Your task to perform on an android device: open chrome privacy settings Image 0: 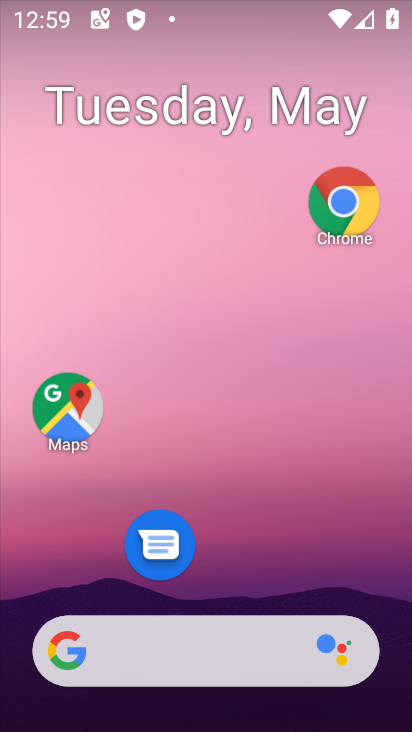
Step 0: click (343, 195)
Your task to perform on an android device: open chrome privacy settings Image 1: 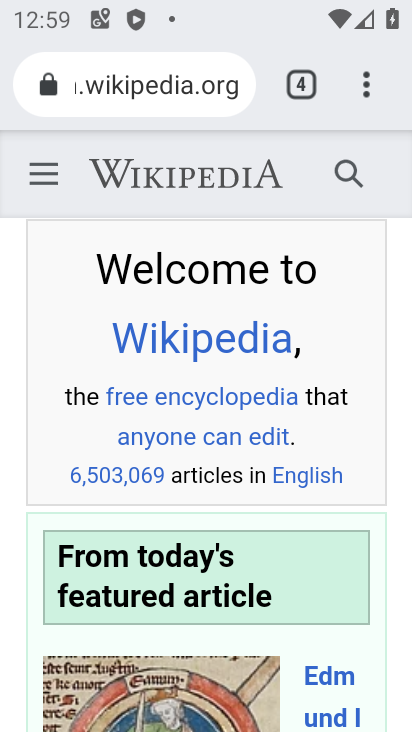
Step 1: click (381, 83)
Your task to perform on an android device: open chrome privacy settings Image 2: 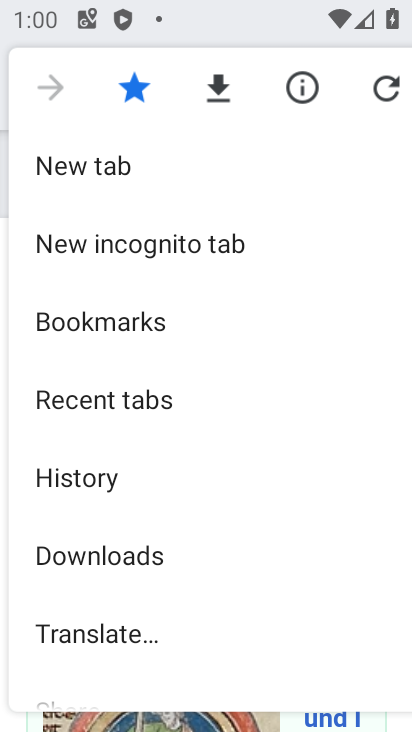
Step 2: drag from (120, 604) to (185, 186)
Your task to perform on an android device: open chrome privacy settings Image 3: 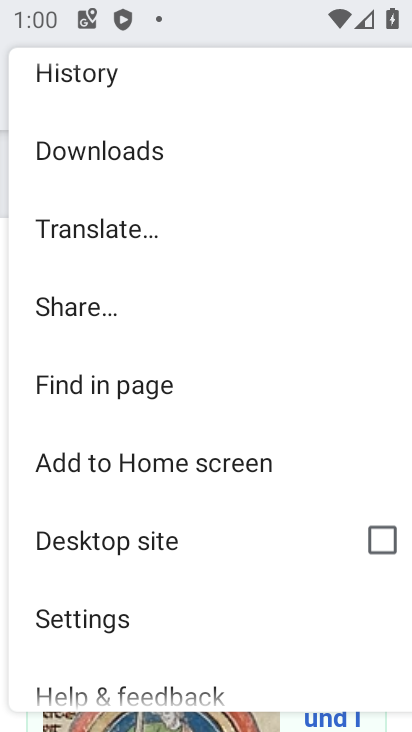
Step 3: click (82, 635)
Your task to perform on an android device: open chrome privacy settings Image 4: 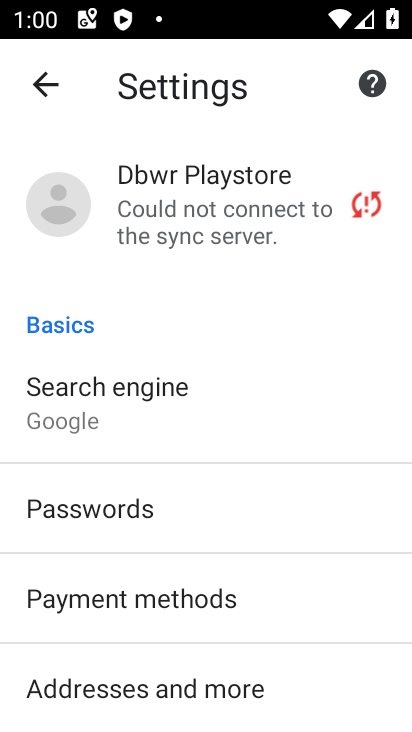
Step 4: drag from (167, 597) to (165, 158)
Your task to perform on an android device: open chrome privacy settings Image 5: 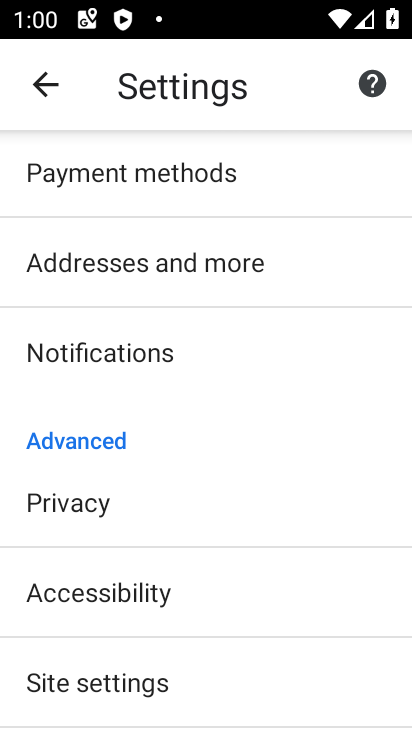
Step 5: drag from (101, 673) to (123, 431)
Your task to perform on an android device: open chrome privacy settings Image 6: 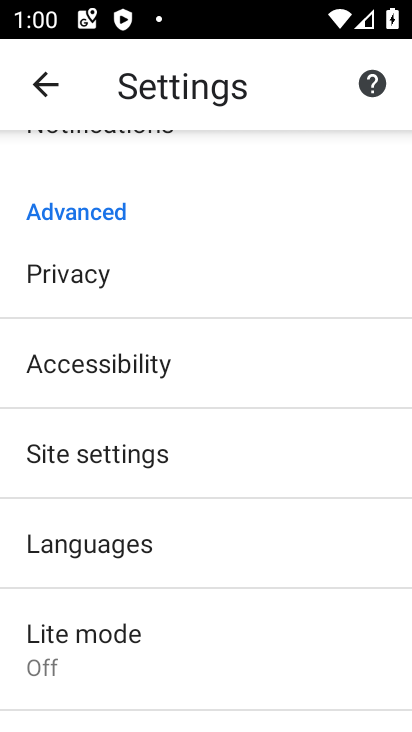
Step 6: click (94, 292)
Your task to perform on an android device: open chrome privacy settings Image 7: 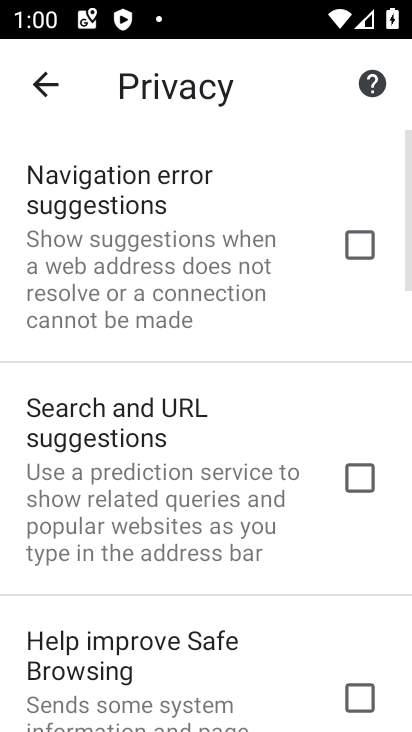
Step 7: task complete